Your task to perform on an android device: move an email to a new category in the gmail app Image 0: 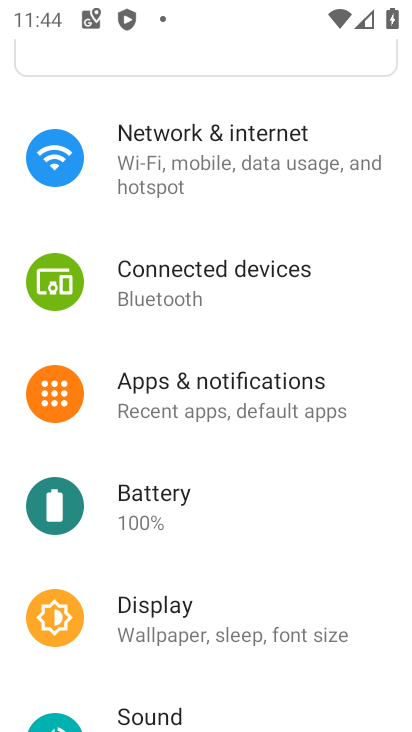
Step 0: press back button
Your task to perform on an android device: move an email to a new category in the gmail app Image 1: 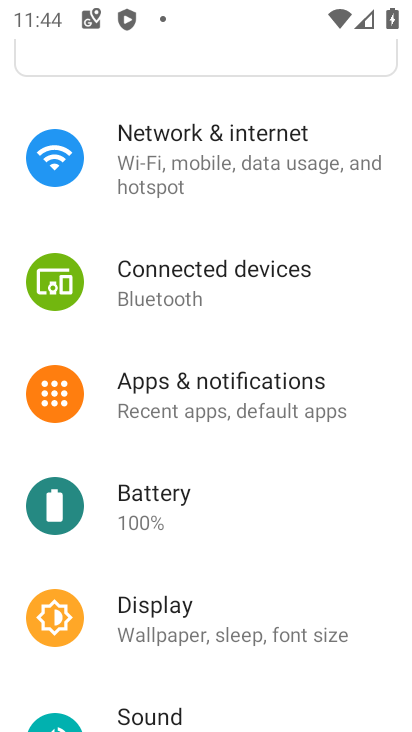
Step 1: press back button
Your task to perform on an android device: move an email to a new category in the gmail app Image 2: 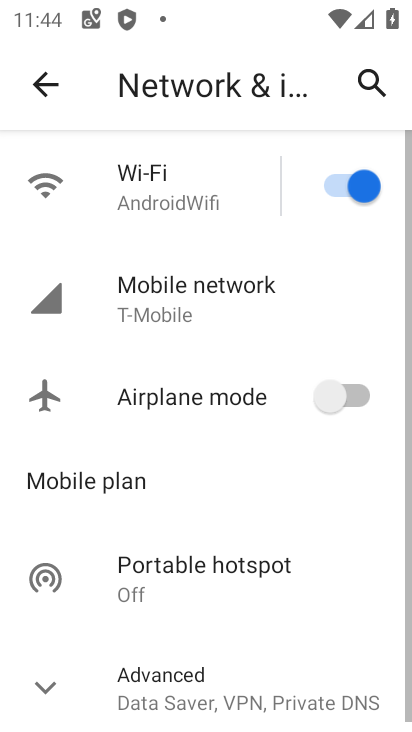
Step 2: press home button
Your task to perform on an android device: move an email to a new category in the gmail app Image 3: 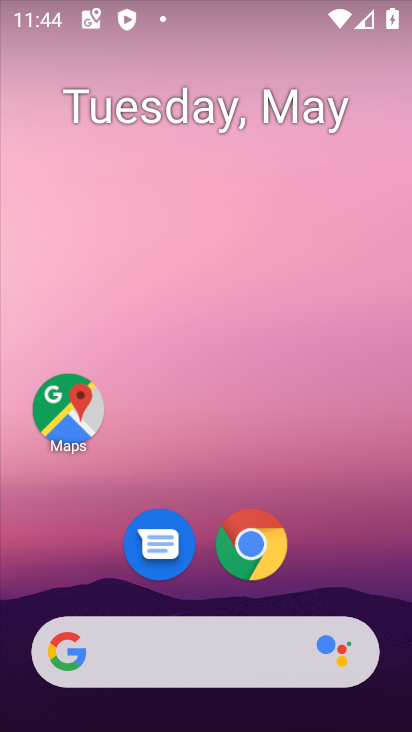
Step 3: drag from (337, 534) to (194, 20)
Your task to perform on an android device: move an email to a new category in the gmail app Image 4: 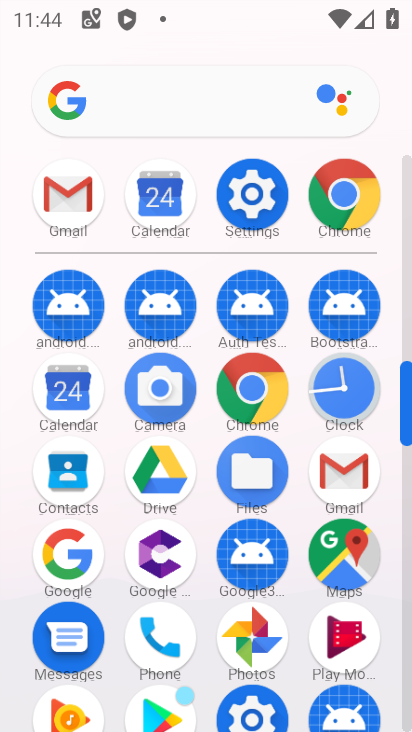
Step 4: click (338, 469)
Your task to perform on an android device: move an email to a new category in the gmail app Image 5: 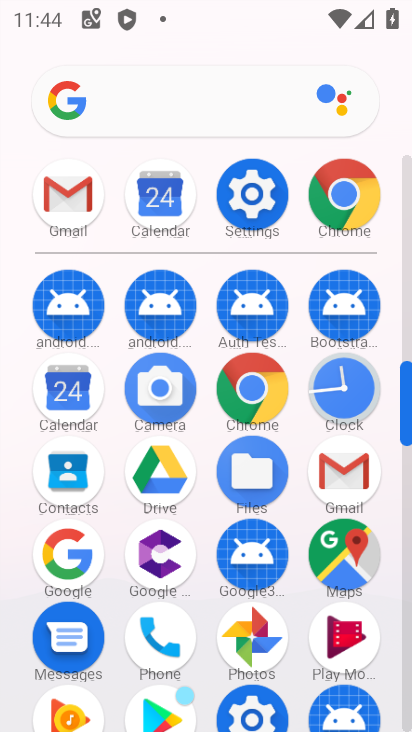
Step 5: click (338, 469)
Your task to perform on an android device: move an email to a new category in the gmail app Image 6: 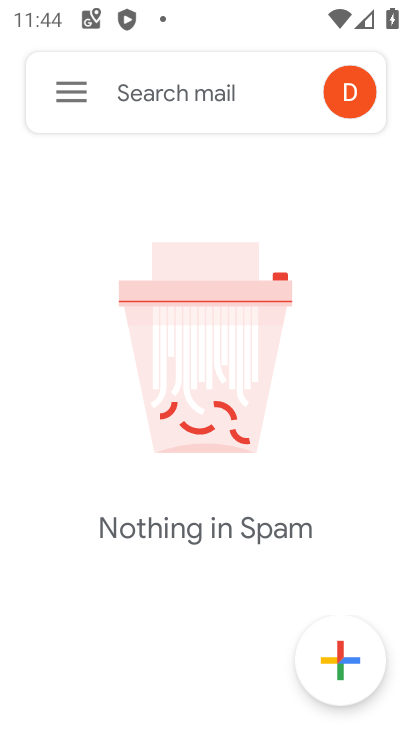
Step 6: click (70, 90)
Your task to perform on an android device: move an email to a new category in the gmail app Image 7: 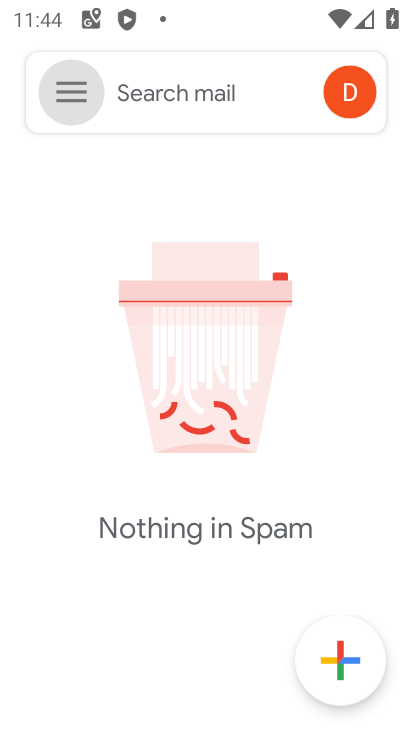
Step 7: drag from (71, 96) to (105, 343)
Your task to perform on an android device: move an email to a new category in the gmail app Image 8: 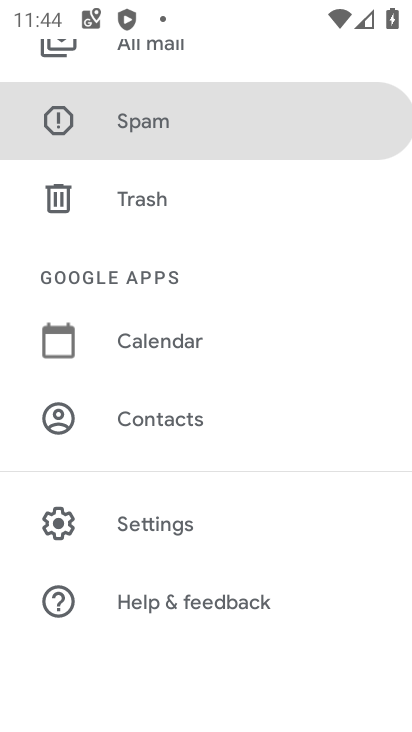
Step 8: drag from (154, 129) to (169, 517)
Your task to perform on an android device: move an email to a new category in the gmail app Image 9: 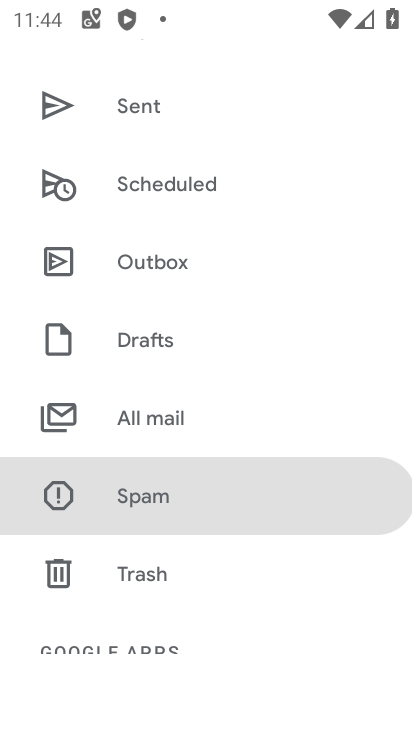
Step 9: click (139, 426)
Your task to perform on an android device: move an email to a new category in the gmail app Image 10: 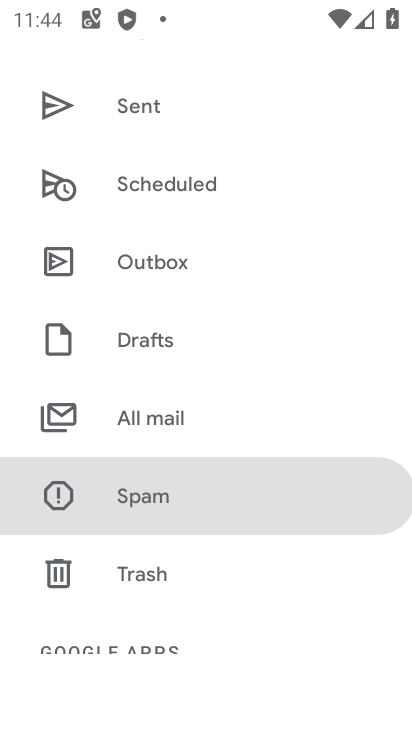
Step 10: click (139, 420)
Your task to perform on an android device: move an email to a new category in the gmail app Image 11: 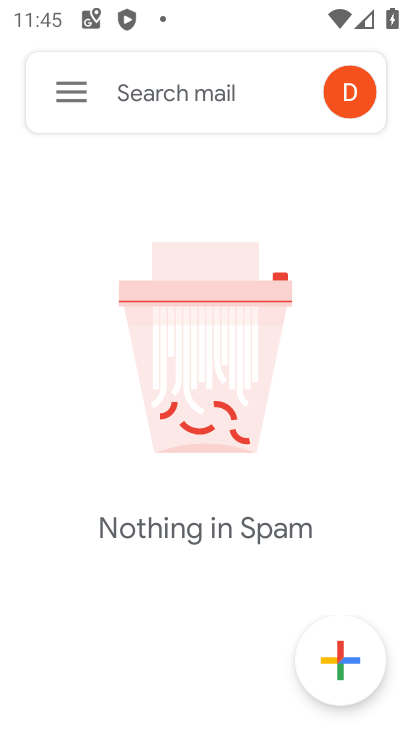
Step 11: click (144, 414)
Your task to perform on an android device: move an email to a new category in the gmail app Image 12: 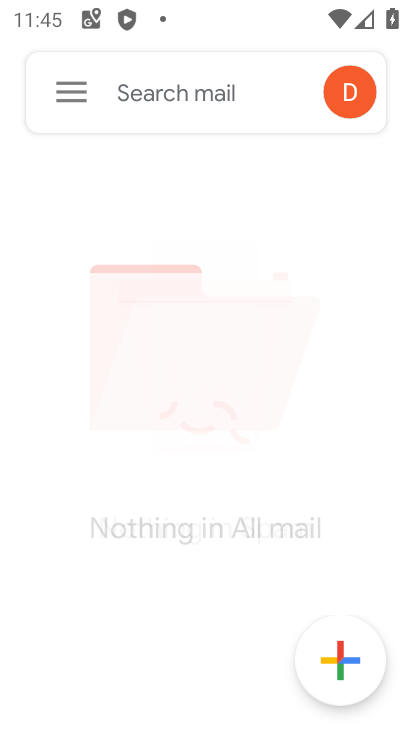
Step 12: click (145, 413)
Your task to perform on an android device: move an email to a new category in the gmail app Image 13: 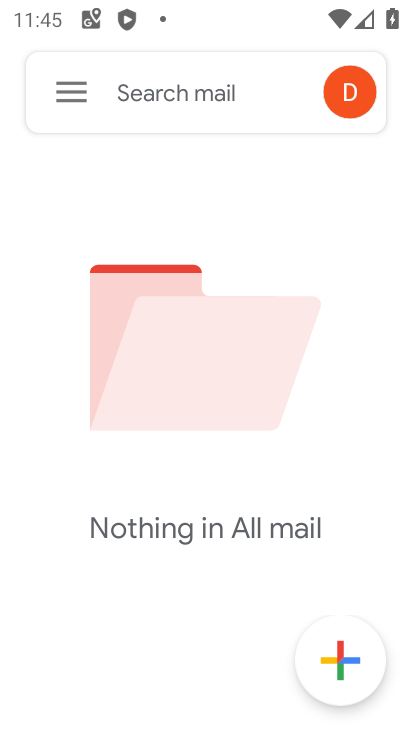
Step 13: task complete